Your task to perform on an android device: turn smart compose on in the gmail app Image 0: 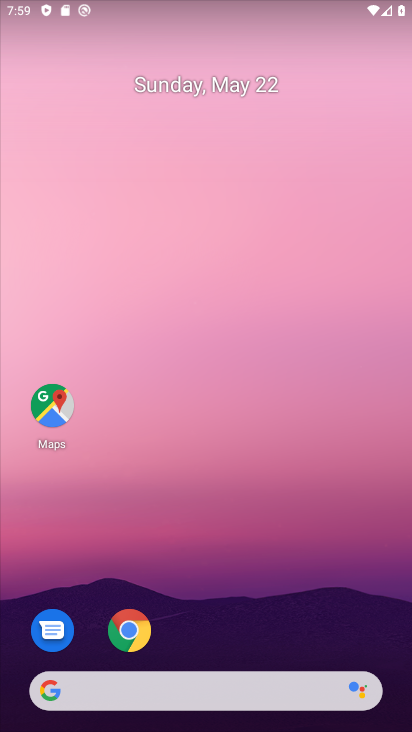
Step 0: drag from (304, 612) to (192, 296)
Your task to perform on an android device: turn smart compose on in the gmail app Image 1: 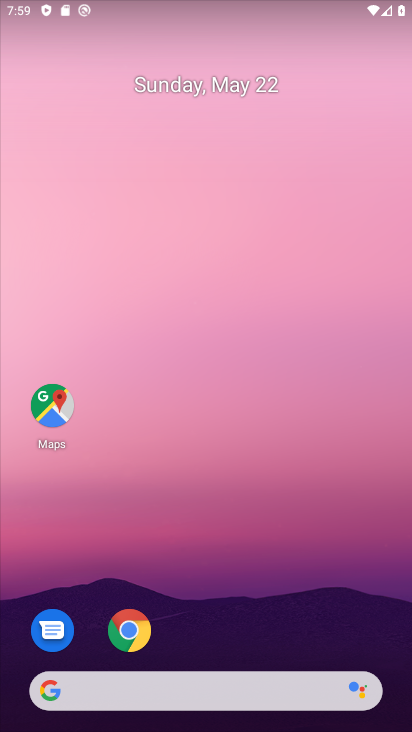
Step 1: drag from (235, 588) to (294, 24)
Your task to perform on an android device: turn smart compose on in the gmail app Image 2: 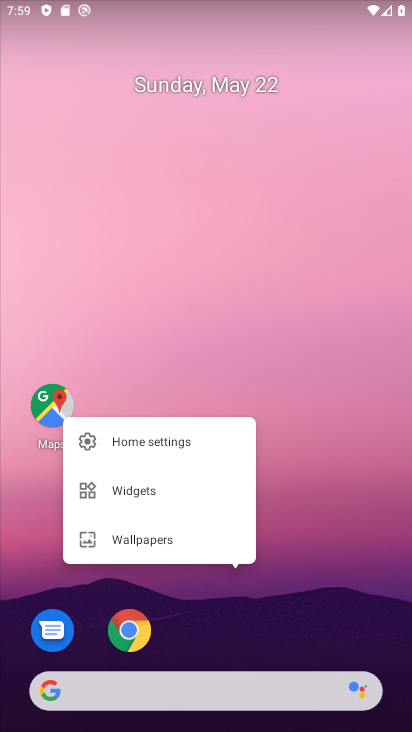
Step 2: click (284, 543)
Your task to perform on an android device: turn smart compose on in the gmail app Image 3: 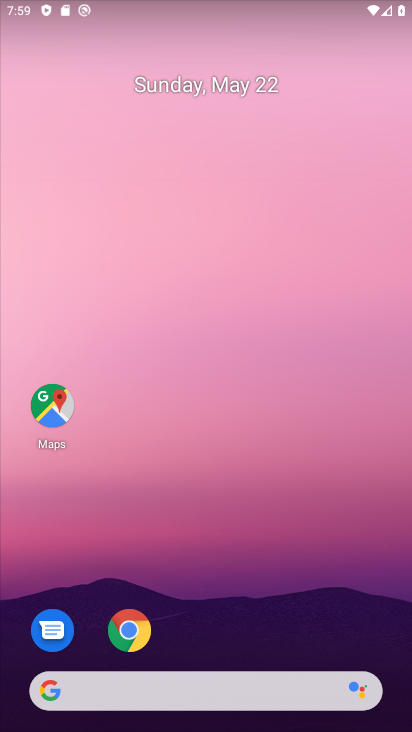
Step 3: drag from (256, 611) to (220, 14)
Your task to perform on an android device: turn smart compose on in the gmail app Image 4: 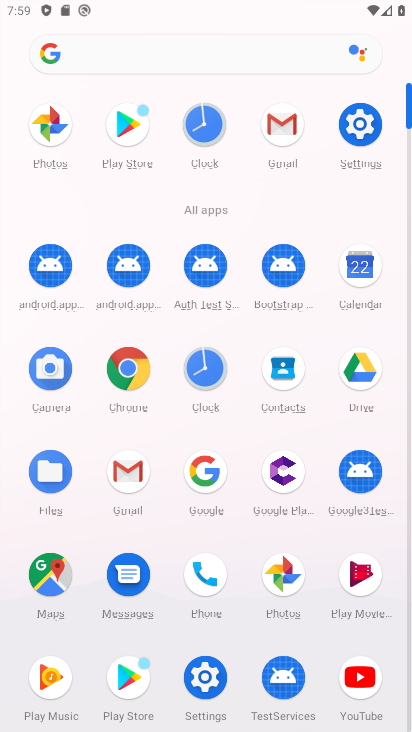
Step 4: click (269, 119)
Your task to perform on an android device: turn smart compose on in the gmail app Image 5: 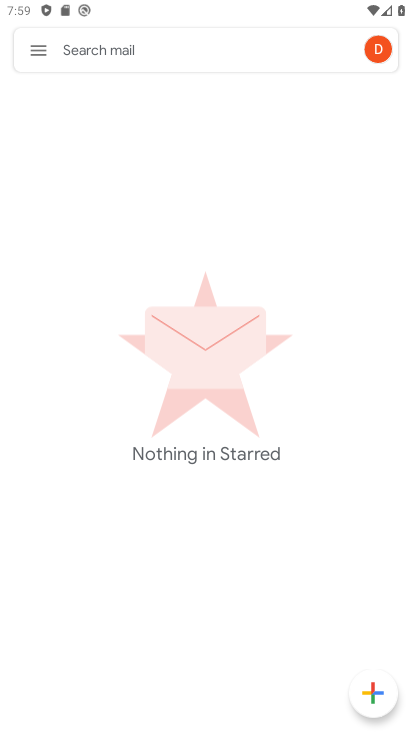
Step 5: click (41, 61)
Your task to perform on an android device: turn smart compose on in the gmail app Image 6: 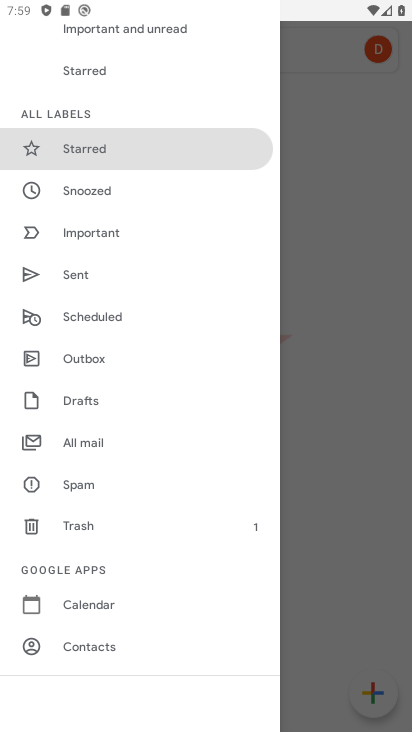
Step 6: click (184, 449)
Your task to perform on an android device: turn smart compose on in the gmail app Image 7: 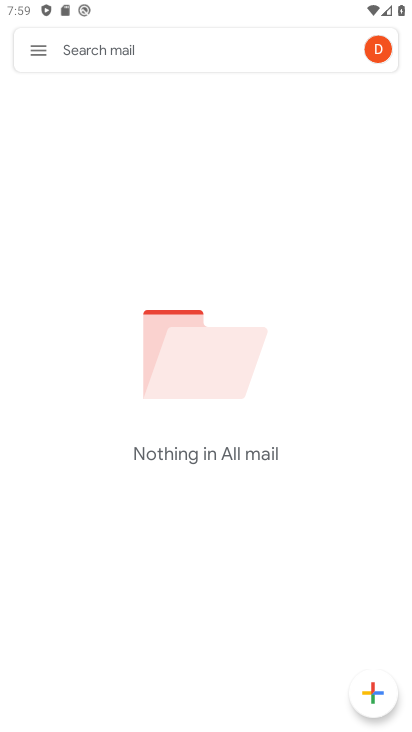
Step 7: click (51, 54)
Your task to perform on an android device: turn smart compose on in the gmail app Image 8: 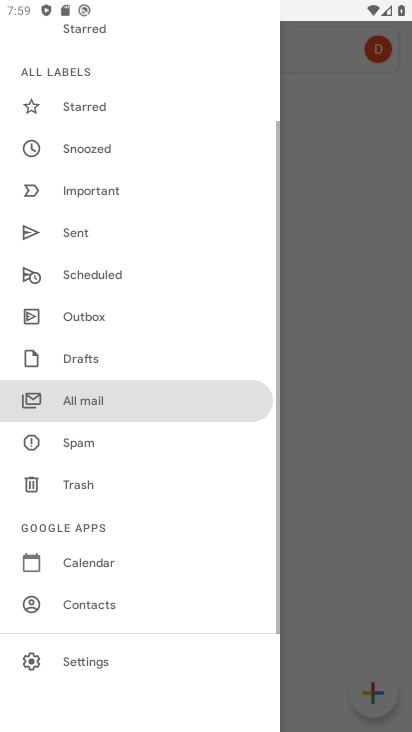
Step 8: click (108, 662)
Your task to perform on an android device: turn smart compose on in the gmail app Image 9: 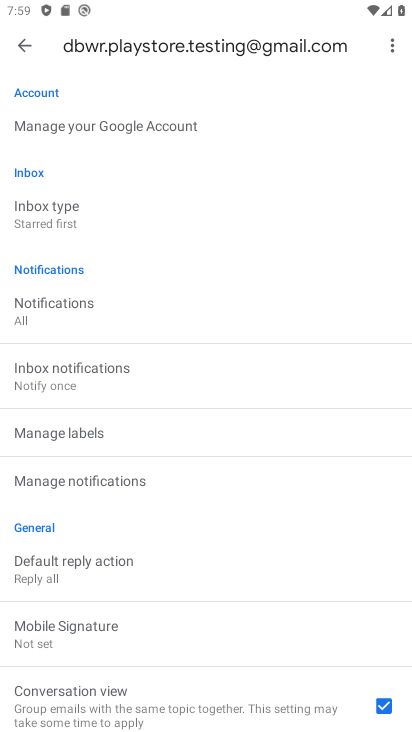
Step 9: drag from (108, 662) to (107, 477)
Your task to perform on an android device: turn smart compose on in the gmail app Image 10: 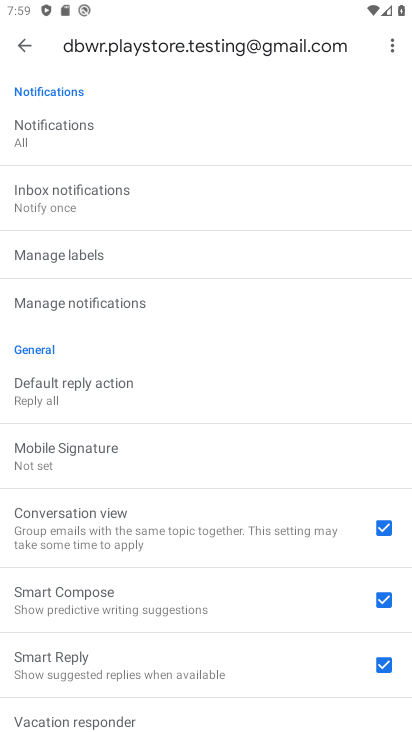
Step 10: click (386, 594)
Your task to perform on an android device: turn smart compose on in the gmail app Image 11: 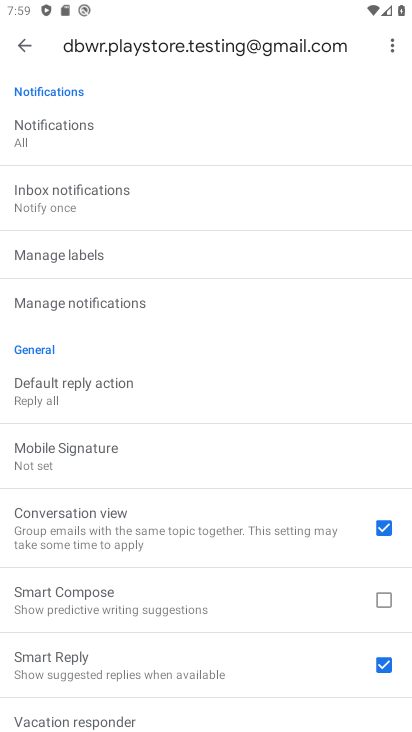
Step 11: task complete